Your task to perform on an android device: Is it going to rain today? Image 0: 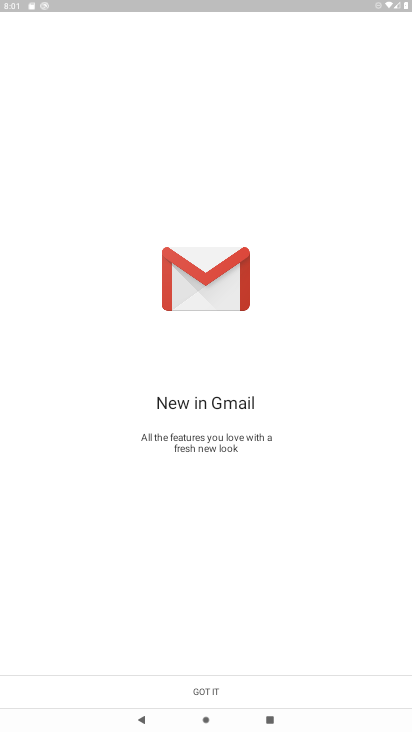
Step 0: press home button
Your task to perform on an android device: Is it going to rain today? Image 1: 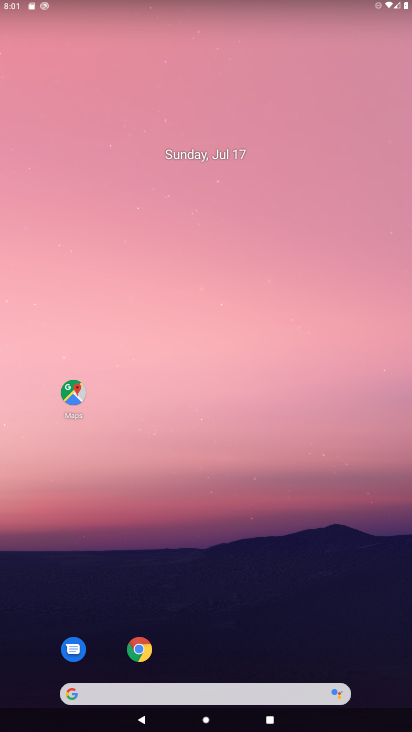
Step 1: click (211, 682)
Your task to perform on an android device: Is it going to rain today? Image 2: 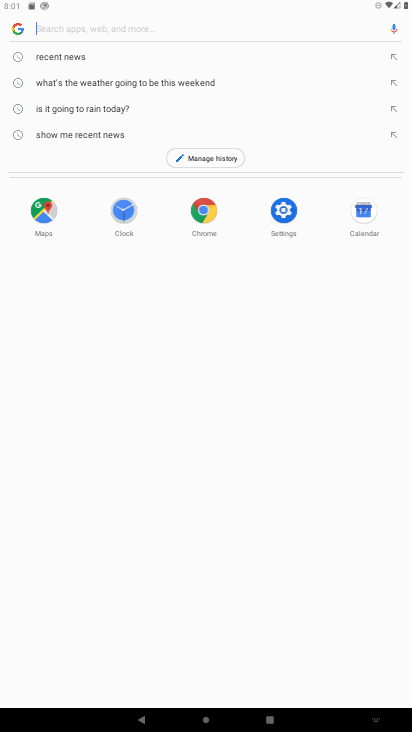
Step 2: click (89, 113)
Your task to perform on an android device: Is it going to rain today? Image 3: 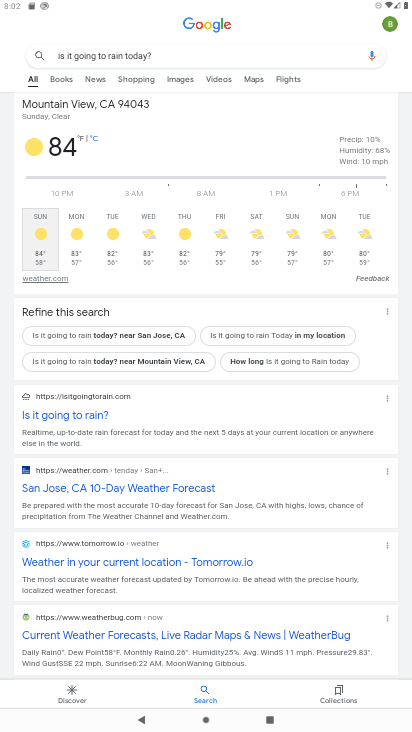
Step 3: click (48, 230)
Your task to perform on an android device: Is it going to rain today? Image 4: 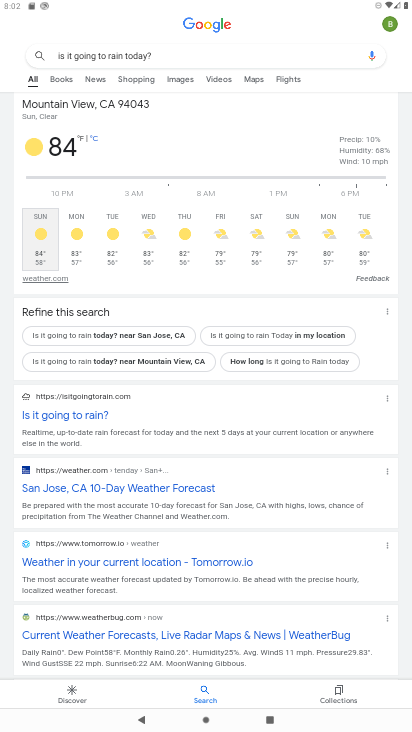
Step 4: task complete